Your task to perform on an android device: see tabs open on other devices in the chrome app Image 0: 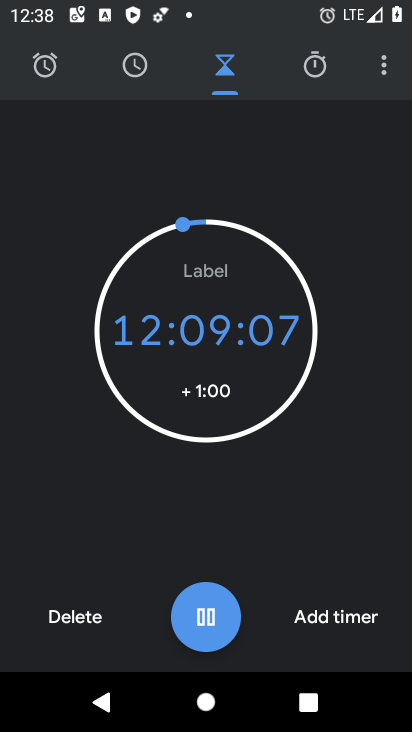
Step 0: press home button
Your task to perform on an android device: see tabs open on other devices in the chrome app Image 1: 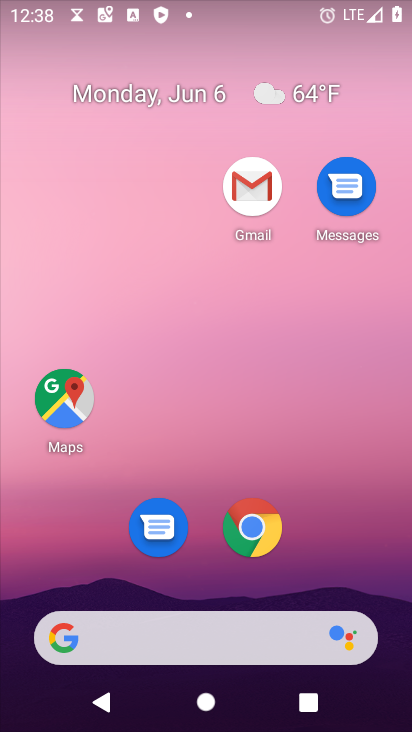
Step 1: click (257, 518)
Your task to perform on an android device: see tabs open on other devices in the chrome app Image 2: 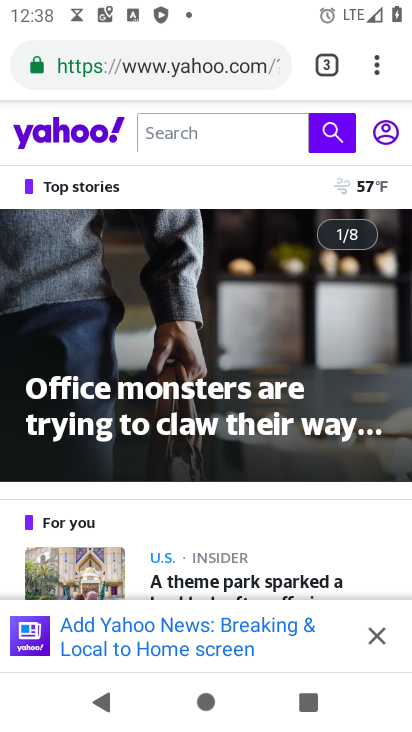
Step 2: click (387, 62)
Your task to perform on an android device: see tabs open on other devices in the chrome app Image 3: 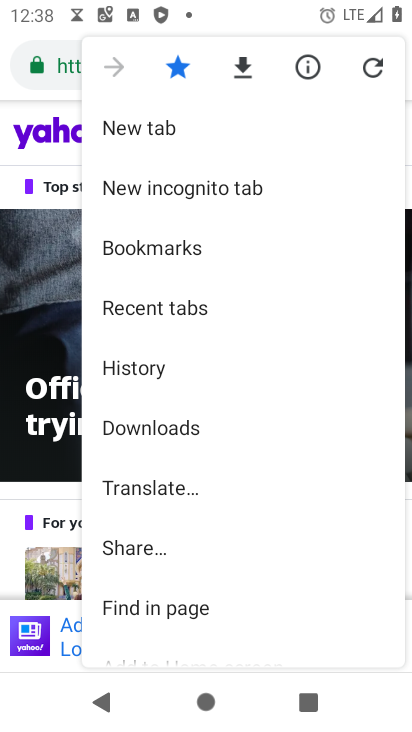
Step 3: click (147, 304)
Your task to perform on an android device: see tabs open on other devices in the chrome app Image 4: 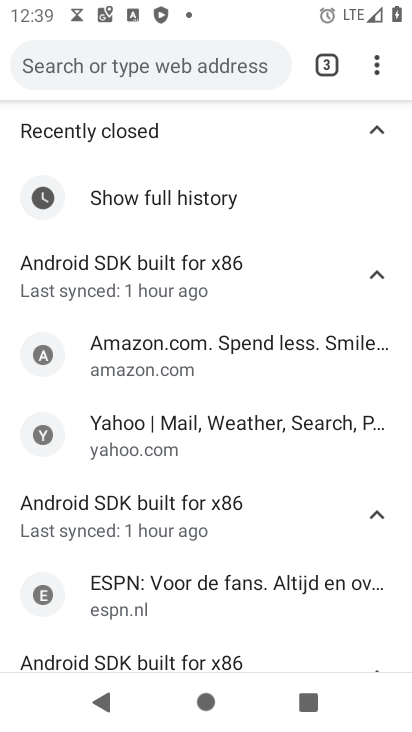
Step 4: task complete